Your task to perform on an android device: Set the phone to "Do not disturb". Image 0: 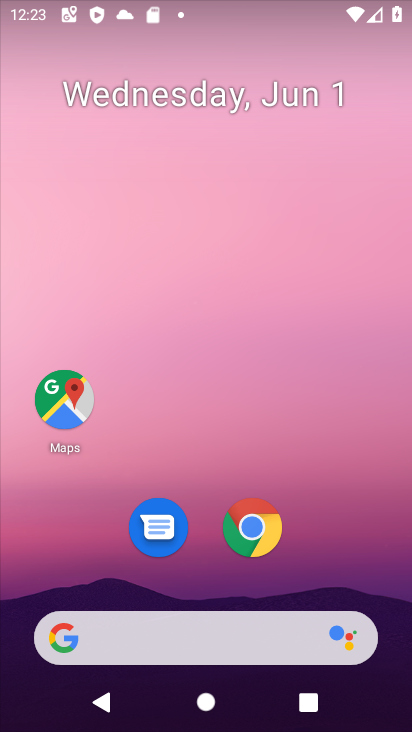
Step 0: drag from (253, 462) to (146, 13)
Your task to perform on an android device: Set the phone to "Do not disturb". Image 1: 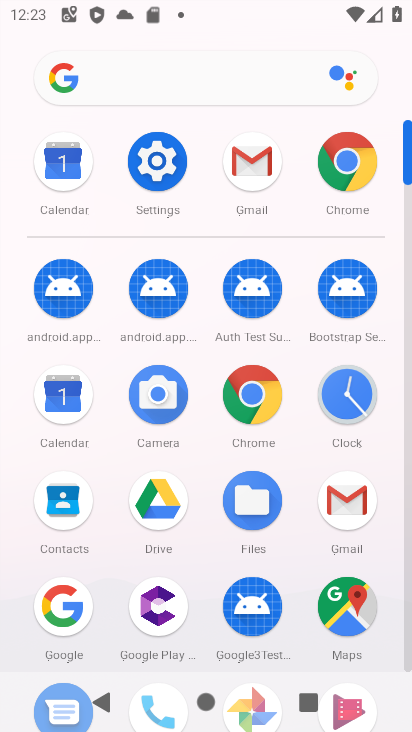
Step 1: click (165, 152)
Your task to perform on an android device: Set the phone to "Do not disturb". Image 2: 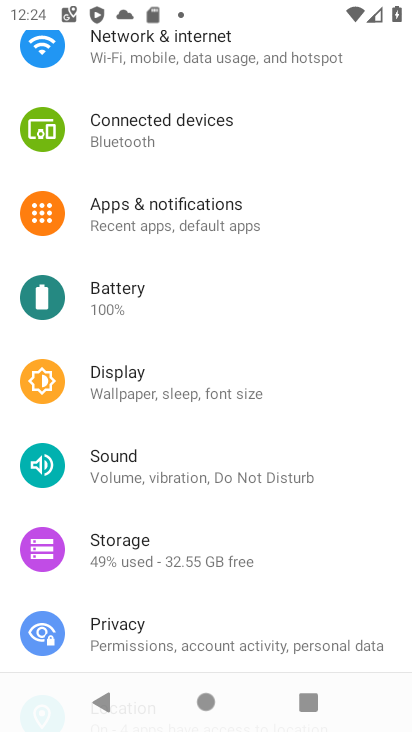
Step 2: click (265, 497)
Your task to perform on an android device: Set the phone to "Do not disturb". Image 3: 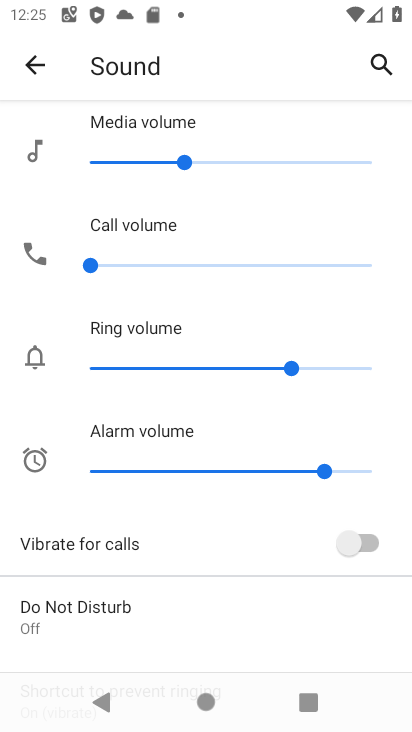
Step 3: click (89, 613)
Your task to perform on an android device: Set the phone to "Do not disturb". Image 4: 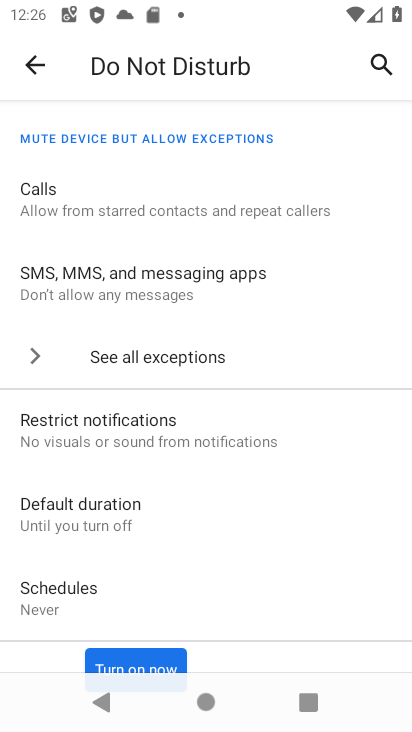
Step 4: click (135, 657)
Your task to perform on an android device: Set the phone to "Do not disturb". Image 5: 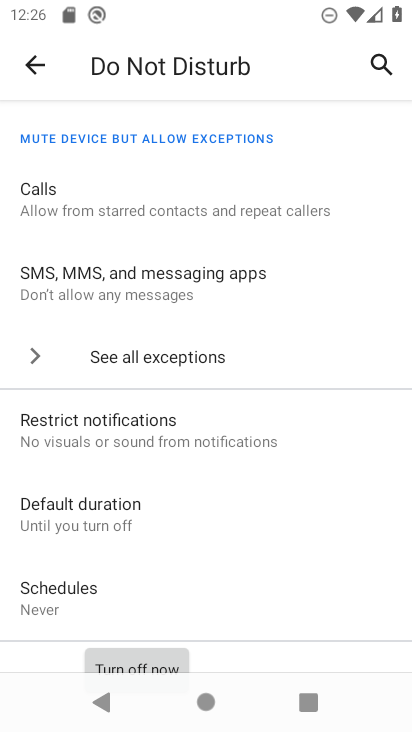
Step 5: task complete